Your task to perform on an android device: manage bookmarks in the chrome app Image 0: 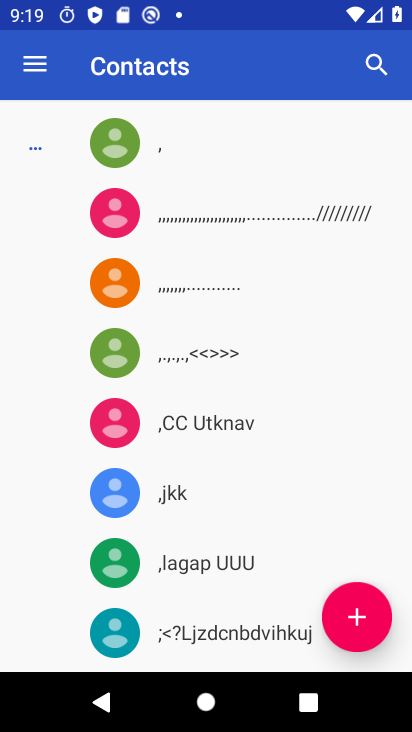
Step 0: press home button
Your task to perform on an android device: manage bookmarks in the chrome app Image 1: 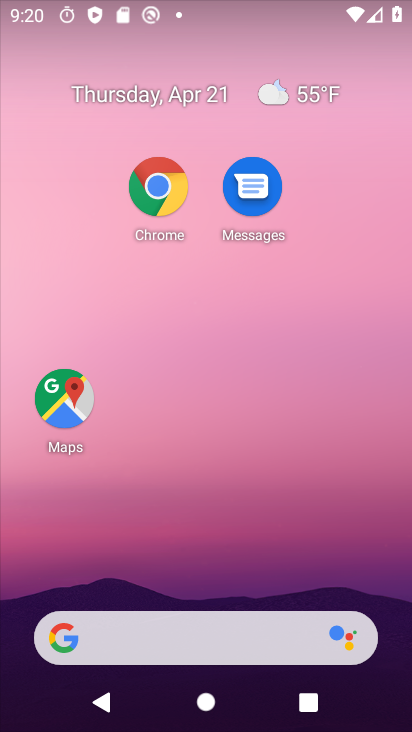
Step 1: click (166, 192)
Your task to perform on an android device: manage bookmarks in the chrome app Image 2: 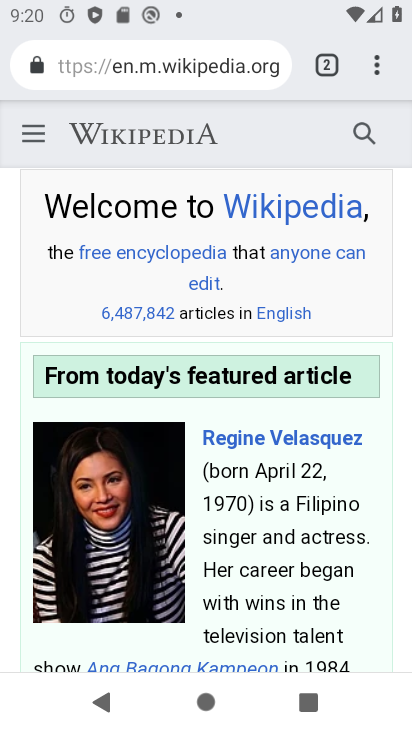
Step 2: click (380, 61)
Your task to perform on an android device: manage bookmarks in the chrome app Image 3: 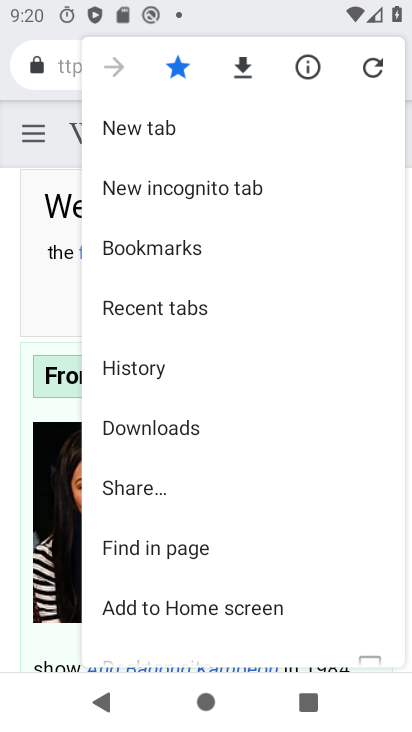
Step 3: click (166, 246)
Your task to perform on an android device: manage bookmarks in the chrome app Image 4: 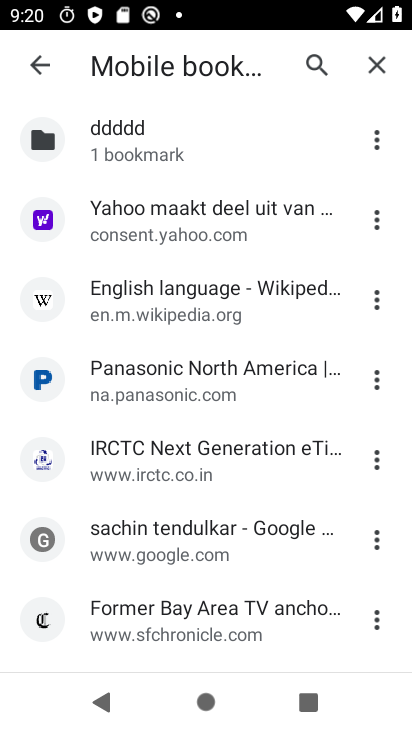
Step 4: click (379, 301)
Your task to perform on an android device: manage bookmarks in the chrome app Image 5: 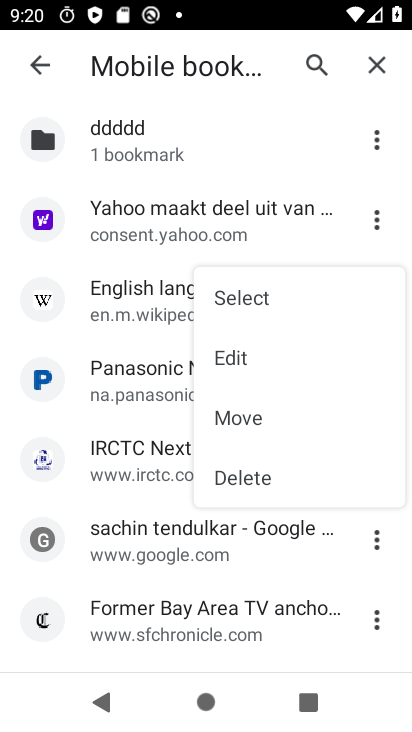
Step 5: click (265, 482)
Your task to perform on an android device: manage bookmarks in the chrome app Image 6: 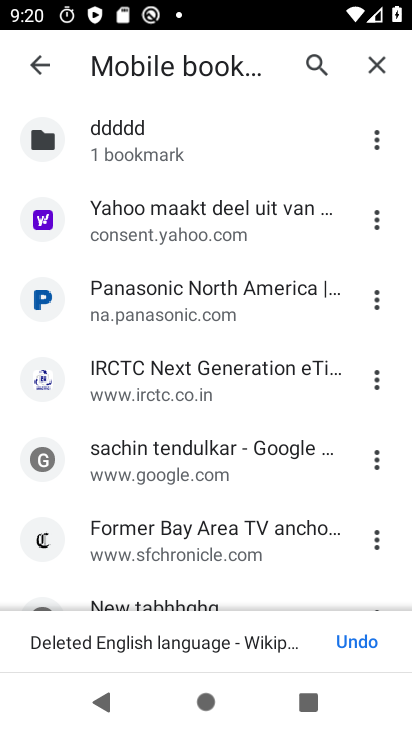
Step 6: click (376, 370)
Your task to perform on an android device: manage bookmarks in the chrome app Image 7: 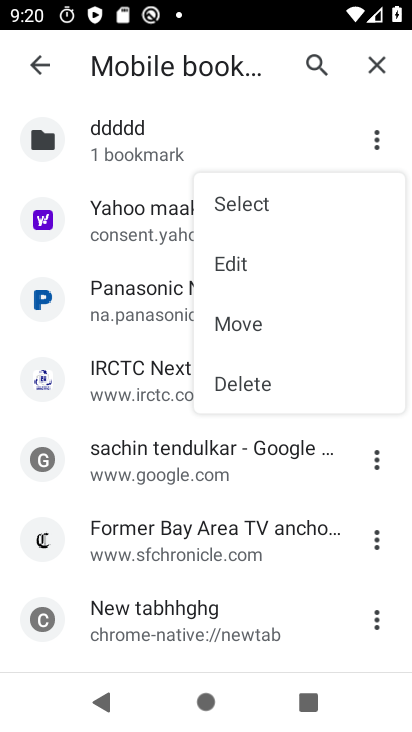
Step 7: click (252, 270)
Your task to perform on an android device: manage bookmarks in the chrome app Image 8: 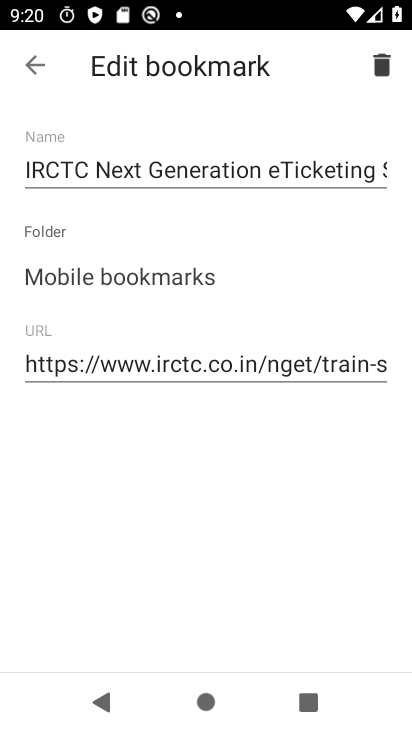
Step 8: click (300, 179)
Your task to perform on an android device: manage bookmarks in the chrome app Image 9: 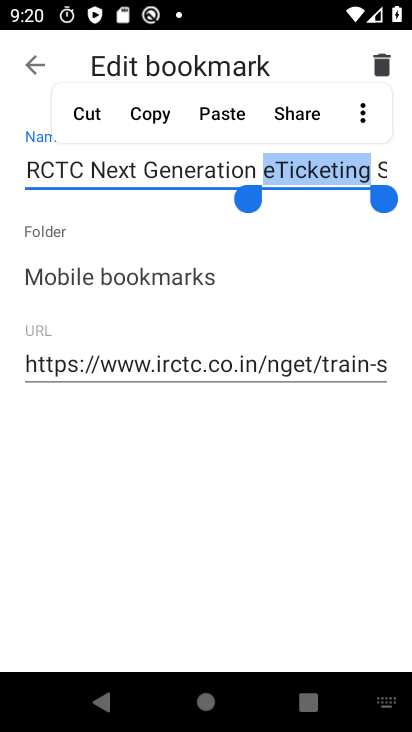
Step 9: click (75, 113)
Your task to perform on an android device: manage bookmarks in the chrome app Image 10: 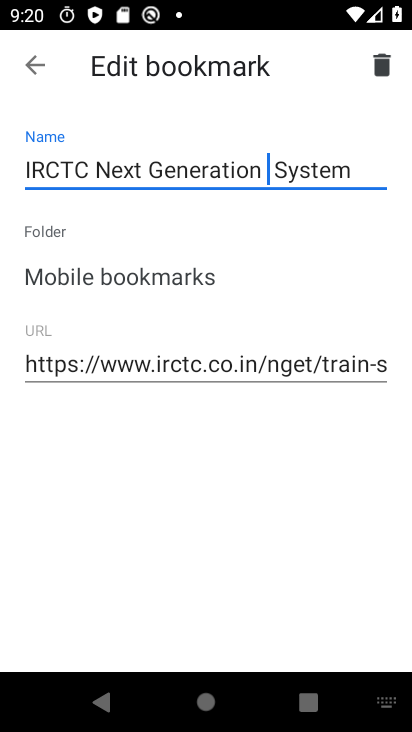
Step 10: click (29, 63)
Your task to perform on an android device: manage bookmarks in the chrome app Image 11: 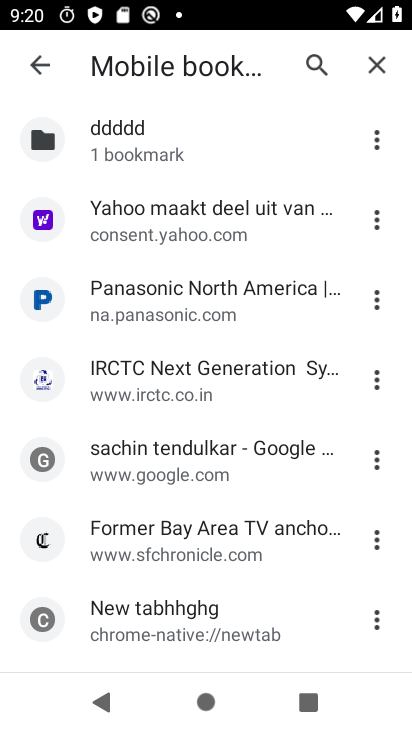
Step 11: task complete